Your task to perform on an android device: open app "LiveIn - Share Your Moment" (install if not already installed), go to login, and select forgot password Image 0: 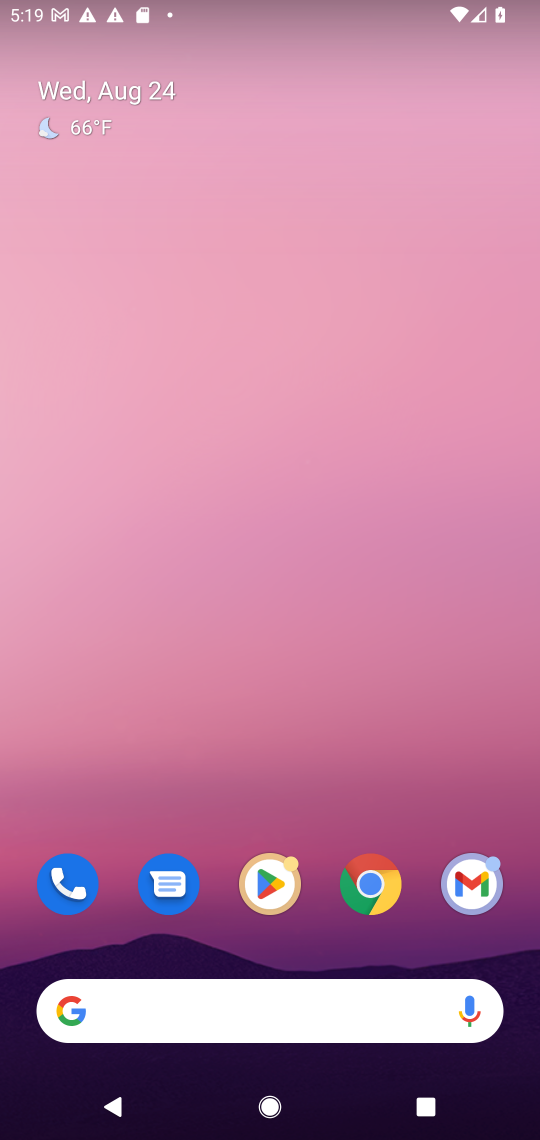
Step 0: click (276, 907)
Your task to perform on an android device: open app "LiveIn - Share Your Moment" (install if not already installed), go to login, and select forgot password Image 1: 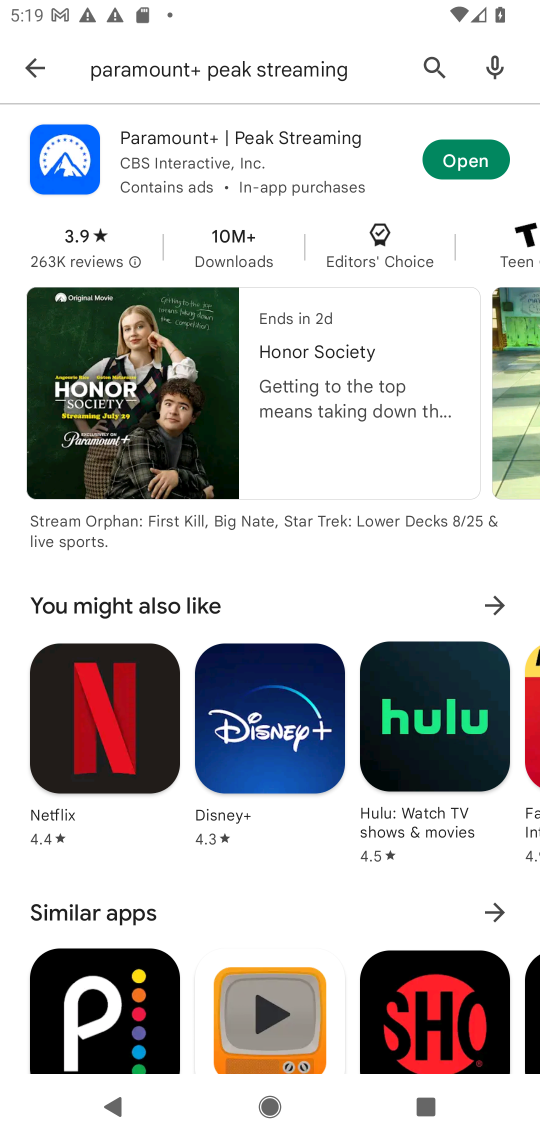
Step 1: click (25, 55)
Your task to perform on an android device: open app "LiveIn - Share Your Moment" (install if not already installed), go to login, and select forgot password Image 2: 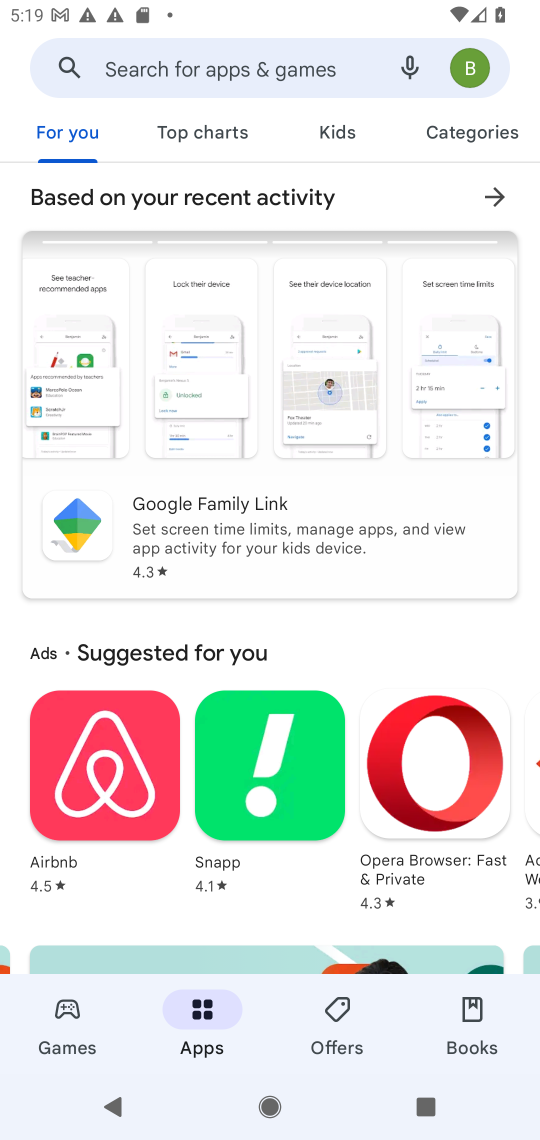
Step 2: click (197, 77)
Your task to perform on an android device: open app "LiveIn - Share Your Moment" (install if not already installed), go to login, and select forgot password Image 3: 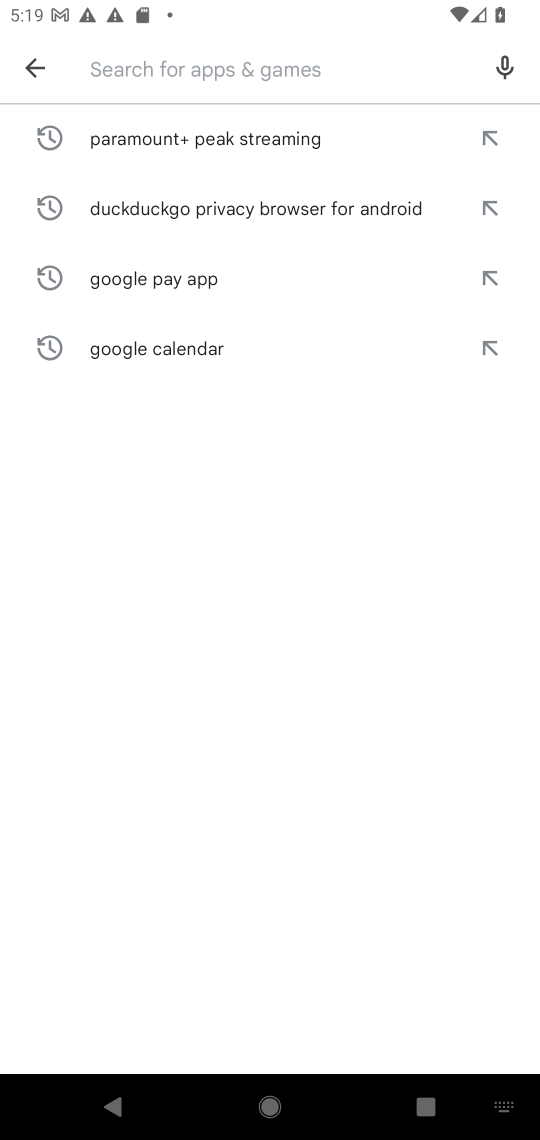
Step 3: type "LiveIn - Share Your Moment"
Your task to perform on an android device: open app "LiveIn - Share Your Moment" (install if not already installed), go to login, and select forgot password Image 4: 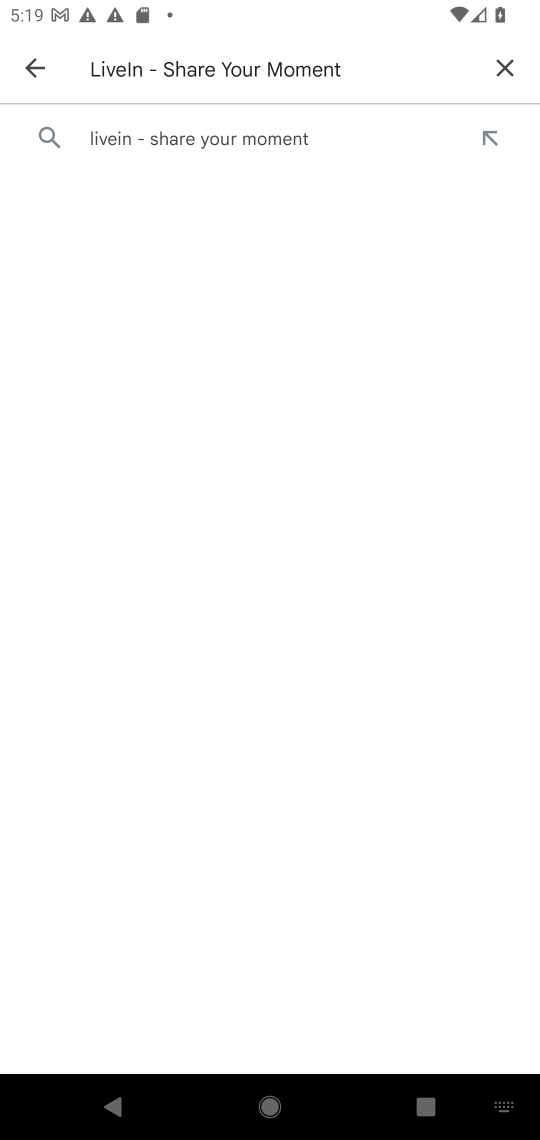
Step 4: click (187, 139)
Your task to perform on an android device: open app "LiveIn - Share Your Moment" (install if not already installed), go to login, and select forgot password Image 5: 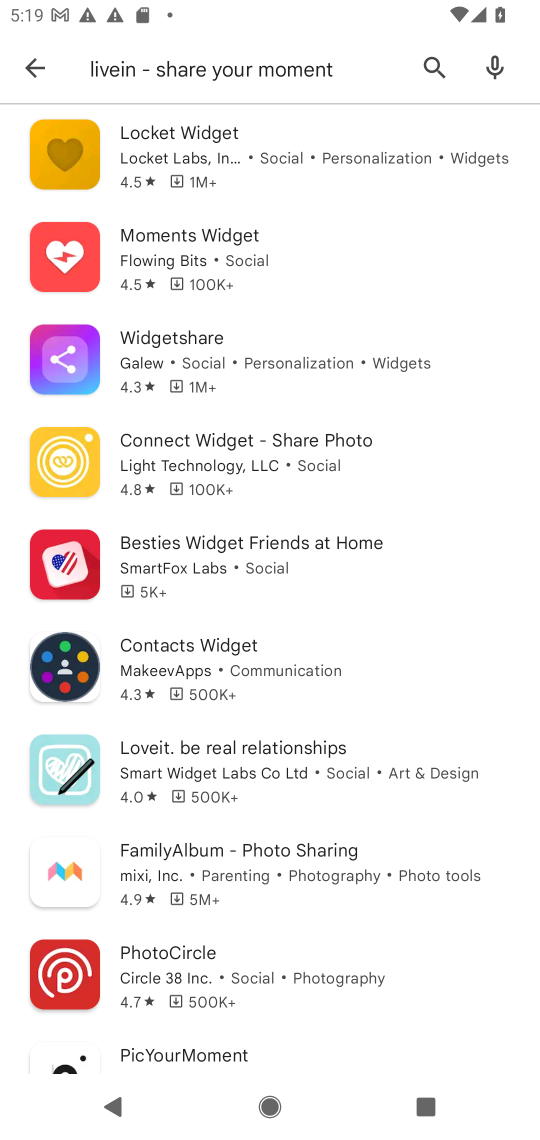
Step 5: task complete